Your task to perform on an android device: Open calendar and show me the second week of next month Image 0: 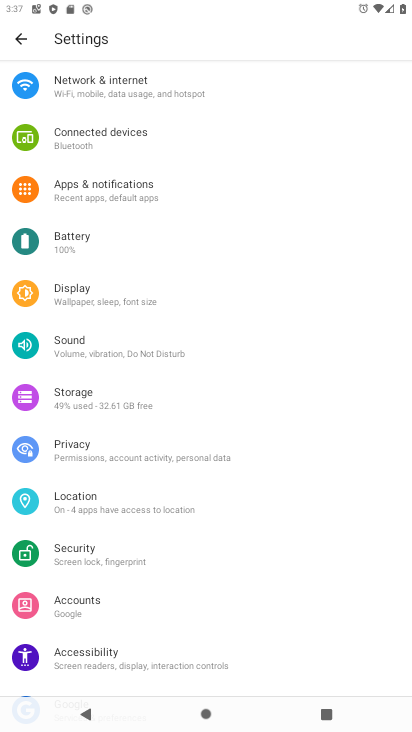
Step 0: press back button
Your task to perform on an android device: Open calendar and show me the second week of next month Image 1: 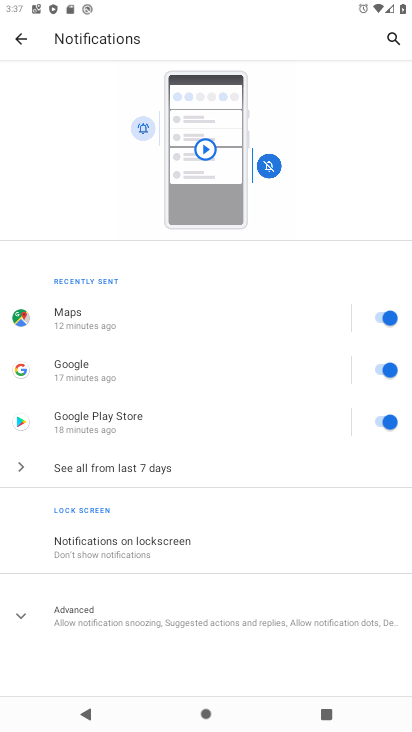
Step 1: press back button
Your task to perform on an android device: Open calendar and show me the second week of next month Image 2: 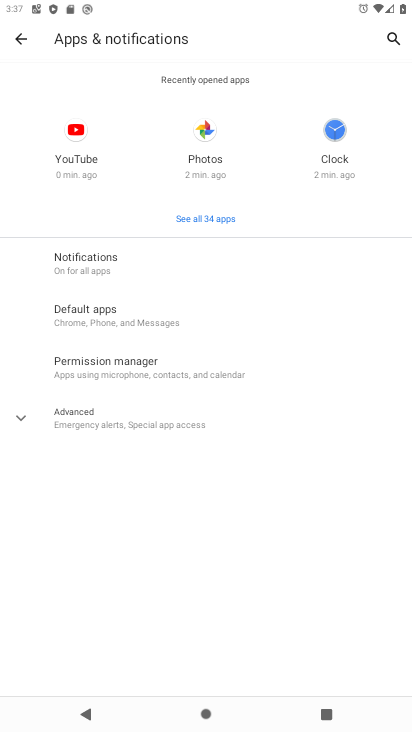
Step 2: press back button
Your task to perform on an android device: Open calendar and show me the second week of next month Image 3: 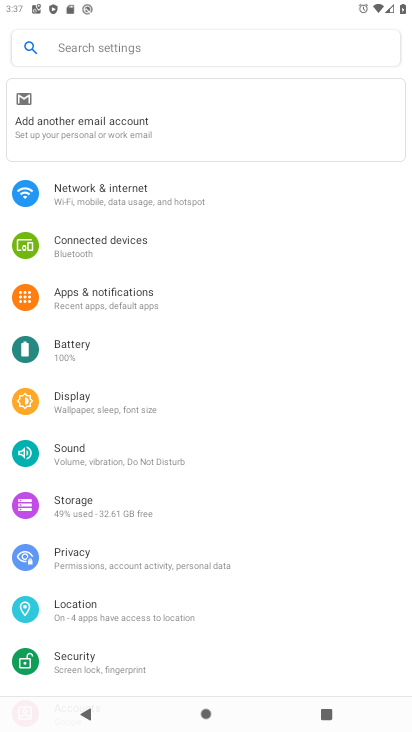
Step 3: press back button
Your task to perform on an android device: Open calendar and show me the second week of next month Image 4: 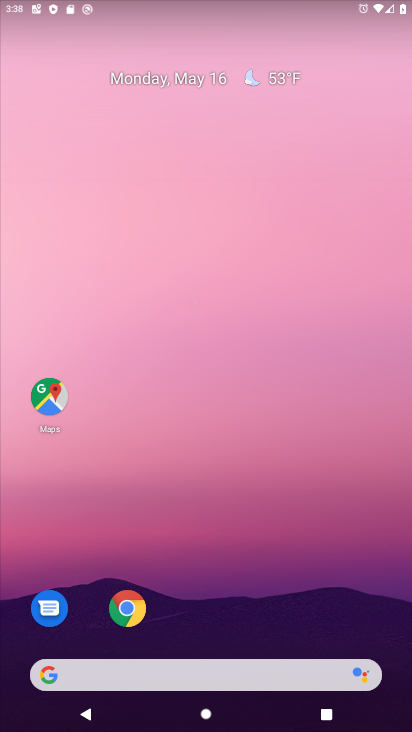
Step 4: drag from (269, 590) to (253, 145)
Your task to perform on an android device: Open calendar and show me the second week of next month Image 5: 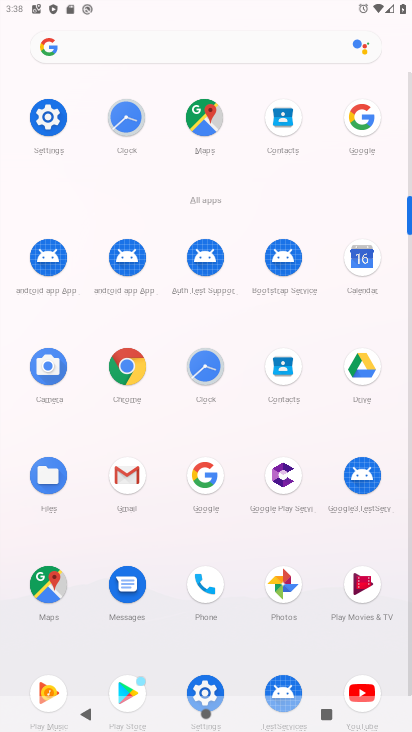
Step 5: drag from (259, 551) to (258, 110)
Your task to perform on an android device: Open calendar and show me the second week of next month Image 6: 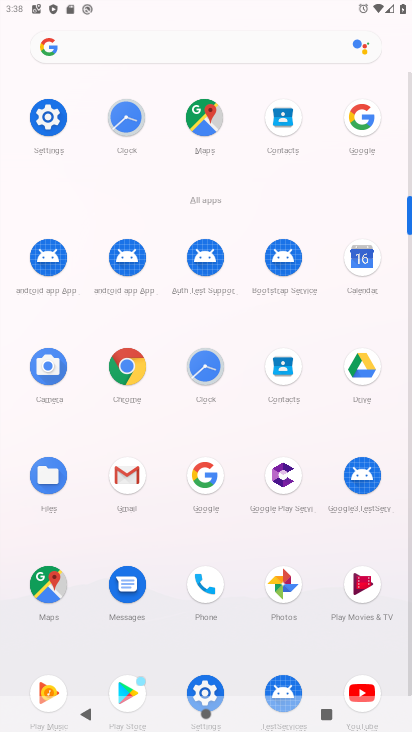
Step 6: click (361, 260)
Your task to perform on an android device: Open calendar and show me the second week of next month Image 7: 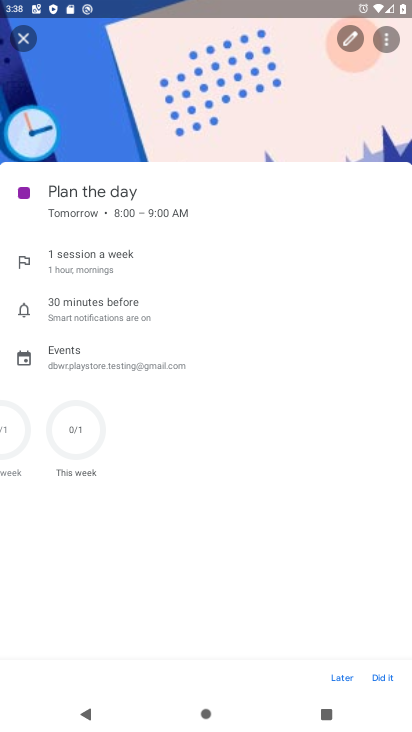
Step 7: click (33, 40)
Your task to perform on an android device: Open calendar and show me the second week of next month Image 8: 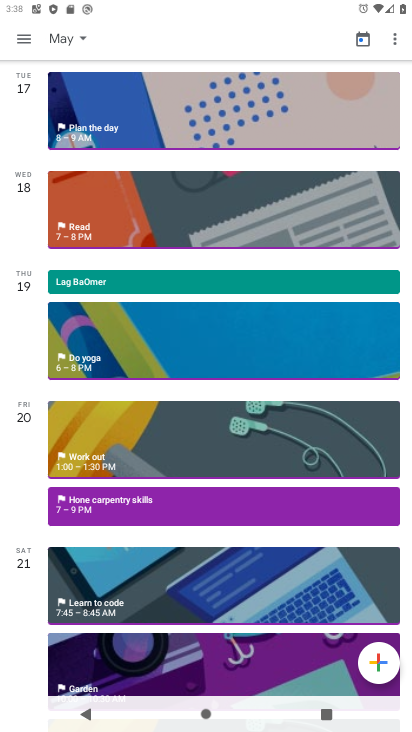
Step 8: click (369, 37)
Your task to perform on an android device: Open calendar and show me the second week of next month Image 9: 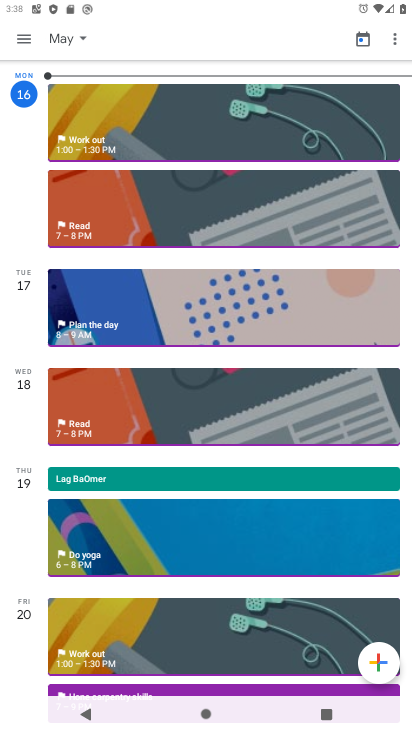
Step 9: click (79, 34)
Your task to perform on an android device: Open calendar and show me the second week of next month Image 10: 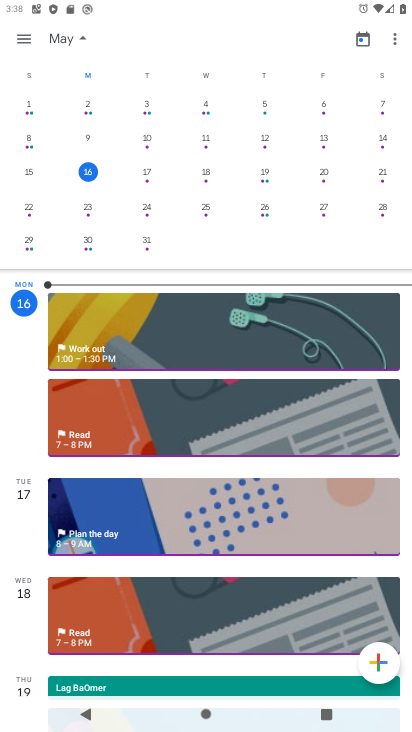
Step 10: drag from (356, 175) to (3, 161)
Your task to perform on an android device: Open calendar and show me the second week of next month Image 11: 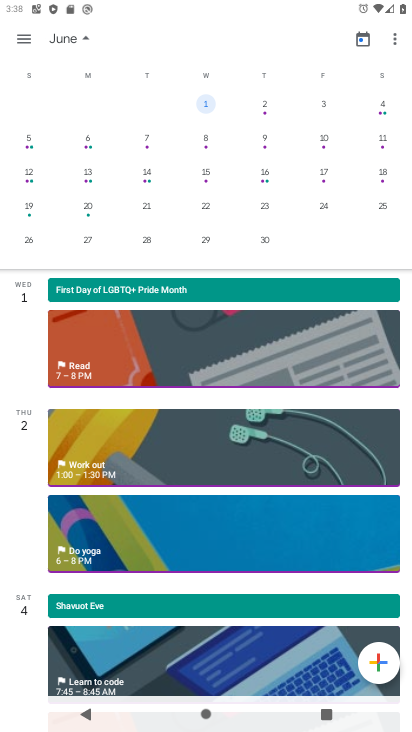
Step 11: click (90, 171)
Your task to perform on an android device: Open calendar and show me the second week of next month Image 12: 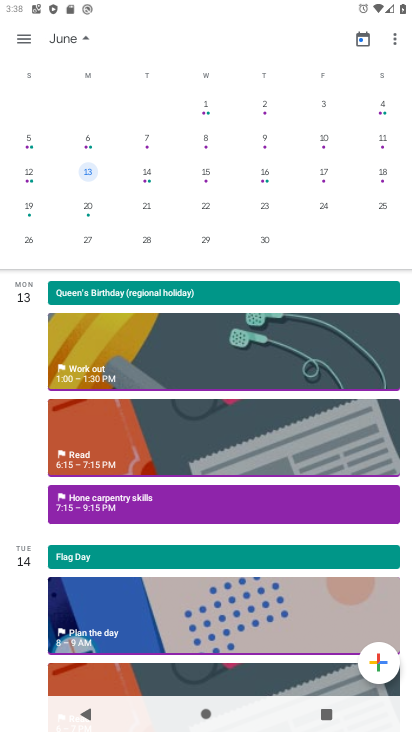
Step 12: click (19, 39)
Your task to perform on an android device: Open calendar and show me the second week of next month Image 13: 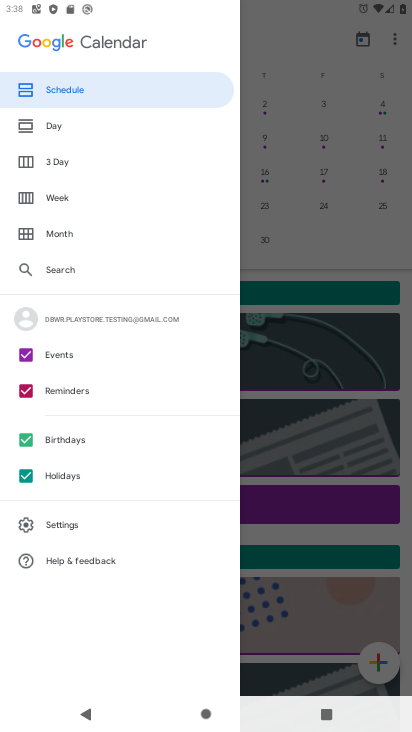
Step 13: click (54, 199)
Your task to perform on an android device: Open calendar and show me the second week of next month Image 14: 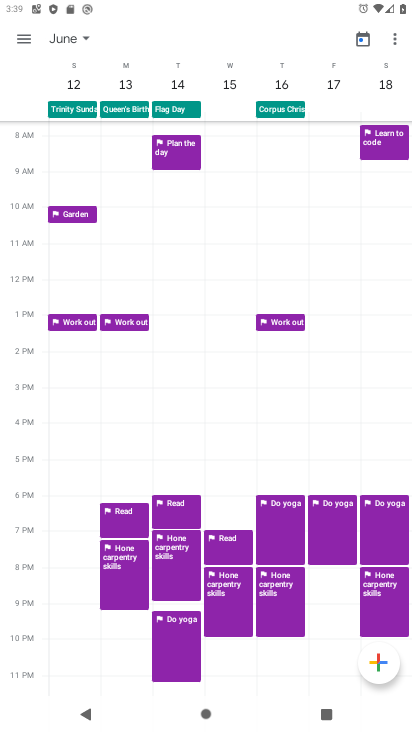
Step 14: task complete